Your task to perform on an android device: Set the phone to "Do not disturb". Image 0: 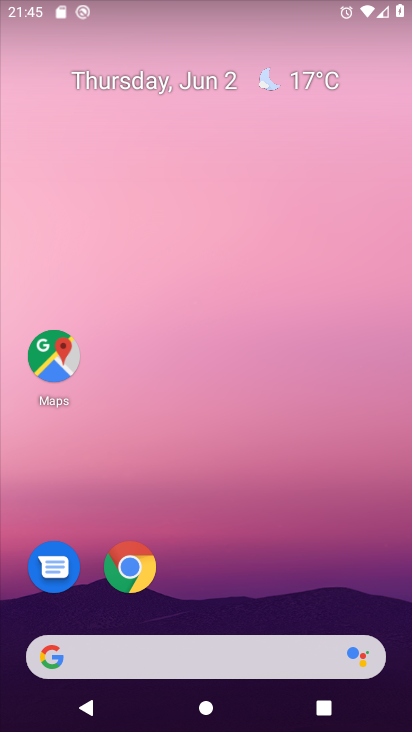
Step 0: drag from (243, 525) to (281, 112)
Your task to perform on an android device: Set the phone to "Do not disturb". Image 1: 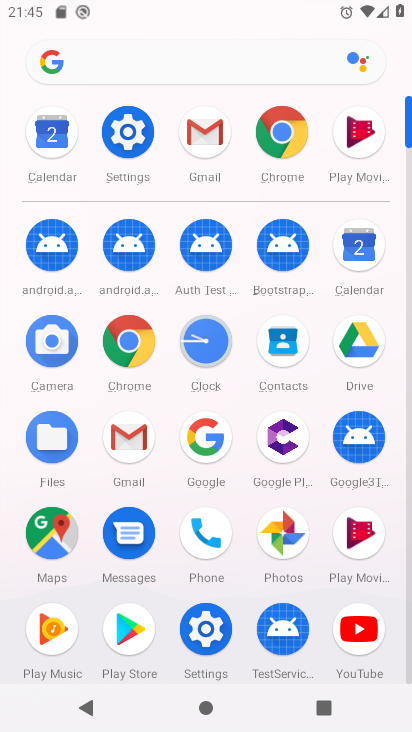
Step 1: click (219, 626)
Your task to perform on an android device: Set the phone to "Do not disturb". Image 2: 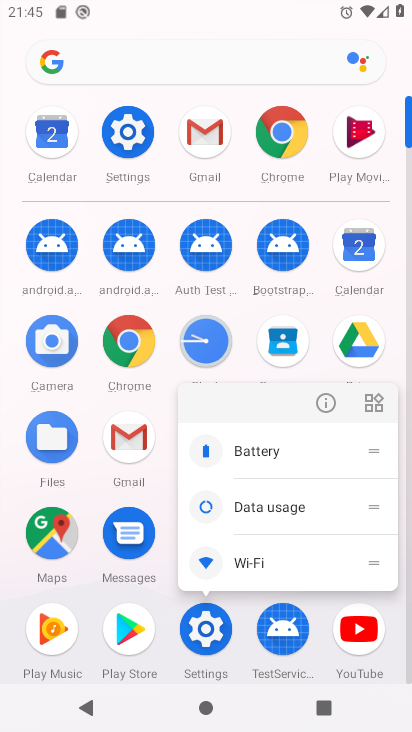
Step 2: click (216, 632)
Your task to perform on an android device: Set the phone to "Do not disturb". Image 3: 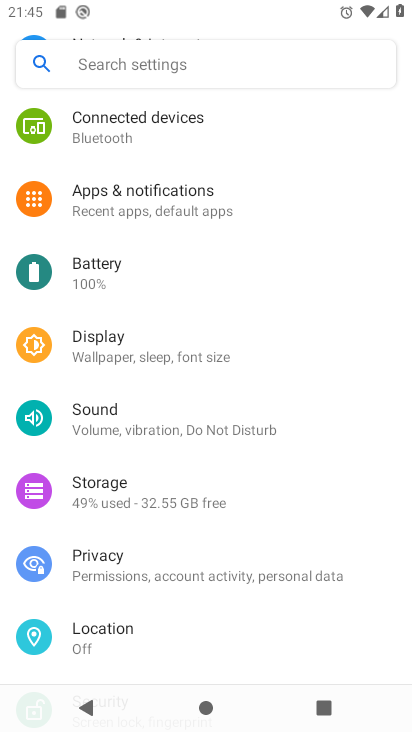
Step 3: click (151, 421)
Your task to perform on an android device: Set the phone to "Do not disturb". Image 4: 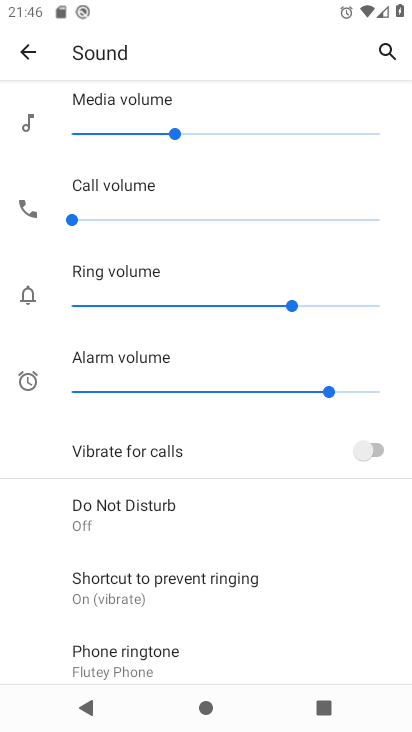
Step 4: click (148, 525)
Your task to perform on an android device: Set the phone to "Do not disturb". Image 5: 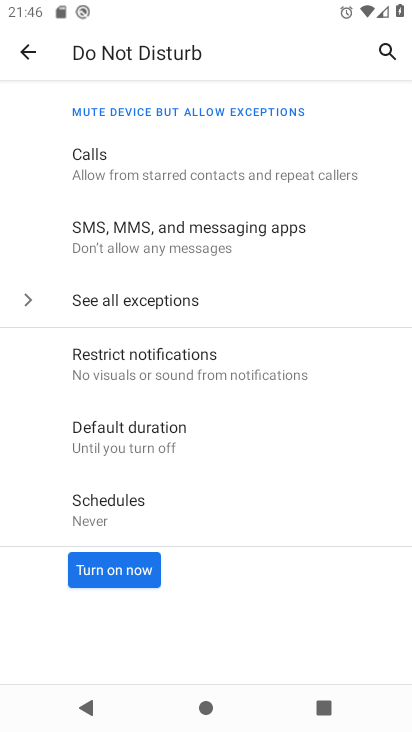
Step 5: click (146, 568)
Your task to perform on an android device: Set the phone to "Do not disturb". Image 6: 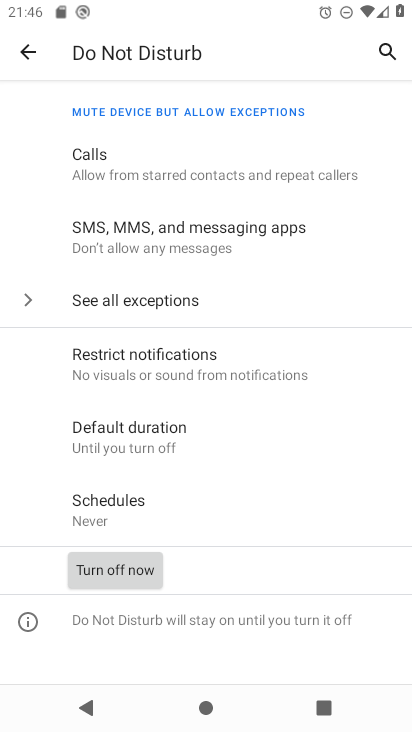
Step 6: task complete